Your task to perform on an android device: Open ESPN.com Image 0: 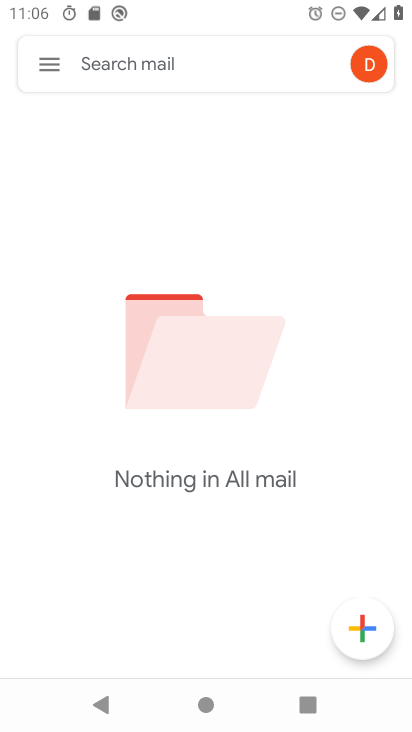
Step 0: press home button
Your task to perform on an android device: Open ESPN.com Image 1: 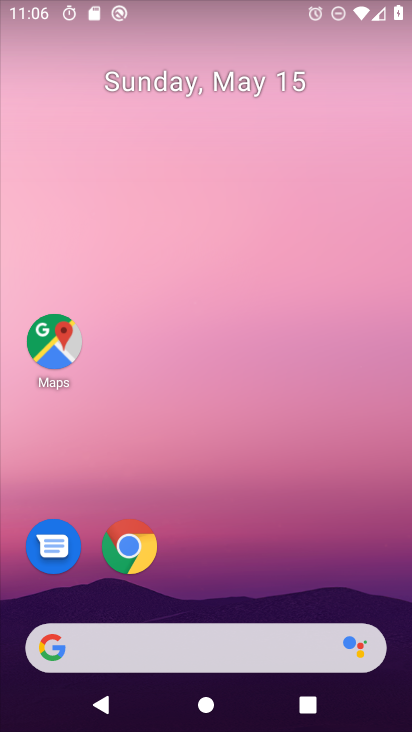
Step 1: drag from (248, 505) to (332, 116)
Your task to perform on an android device: Open ESPN.com Image 2: 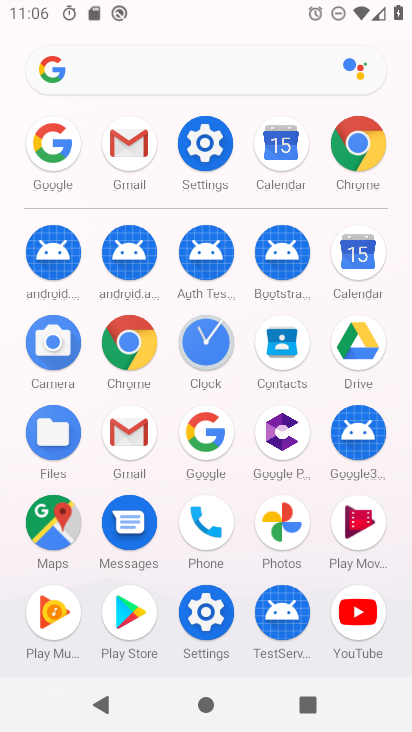
Step 2: click (119, 341)
Your task to perform on an android device: Open ESPN.com Image 3: 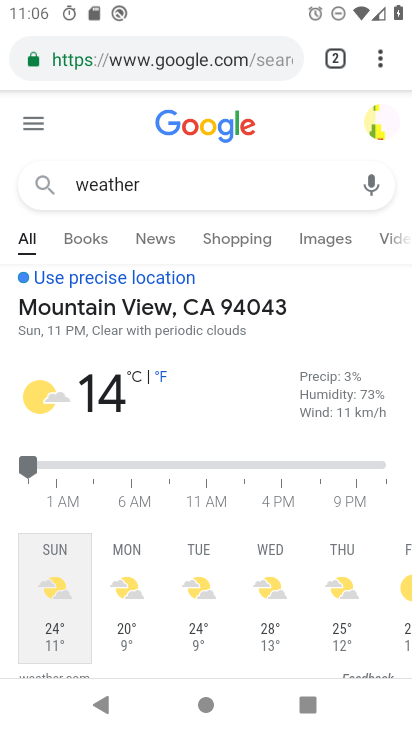
Step 3: click (168, 60)
Your task to perform on an android device: Open ESPN.com Image 4: 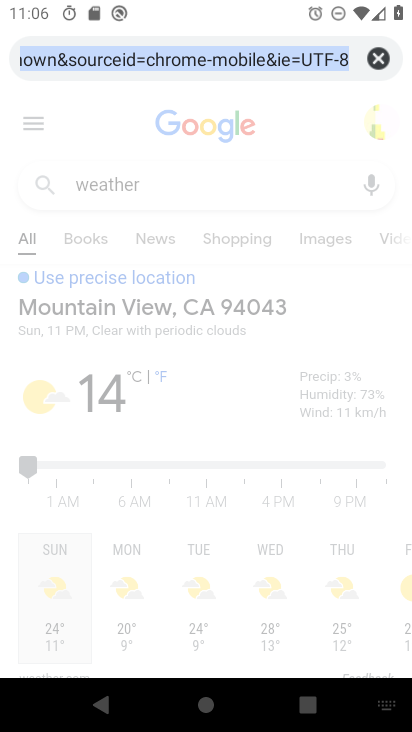
Step 4: type "espn.com"
Your task to perform on an android device: Open ESPN.com Image 5: 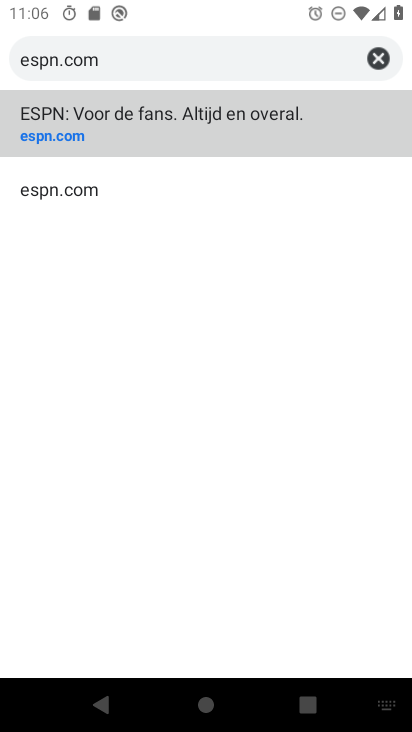
Step 5: click (50, 133)
Your task to perform on an android device: Open ESPN.com Image 6: 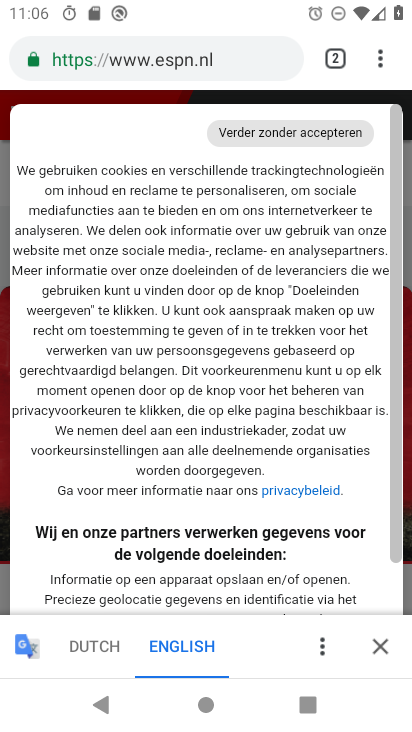
Step 6: task complete